Your task to perform on an android device: open chrome and create a bookmark for the current page Image 0: 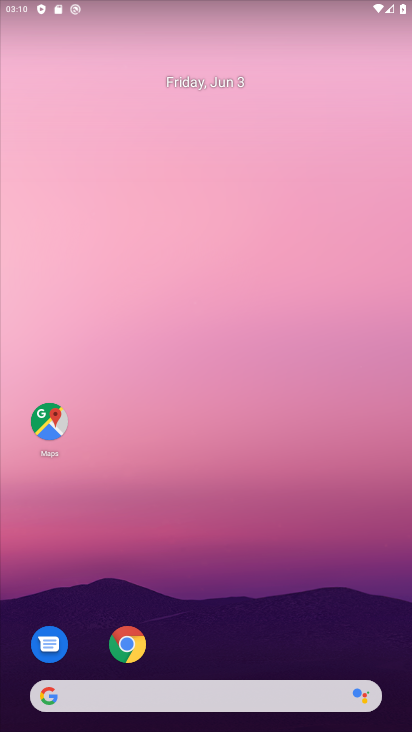
Step 0: press home button
Your task to perform on an android device: open chrome and create a bookmark for the current page Image 1: 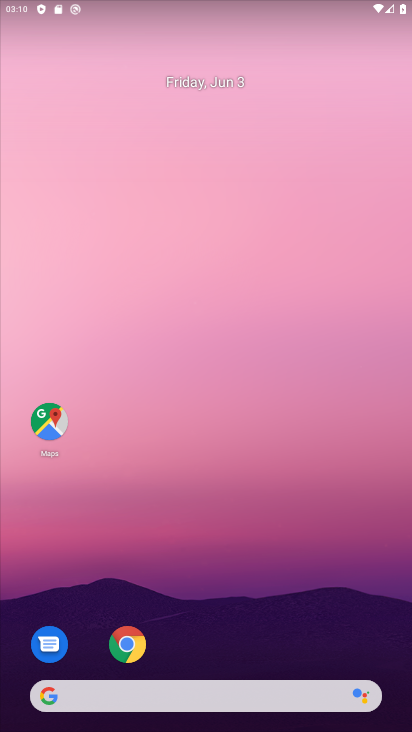
Step 1: drag from (400, 684) to (368, 118)
Your task to perform on an android device: open chrome and create a bookmark for the current page Image 2: 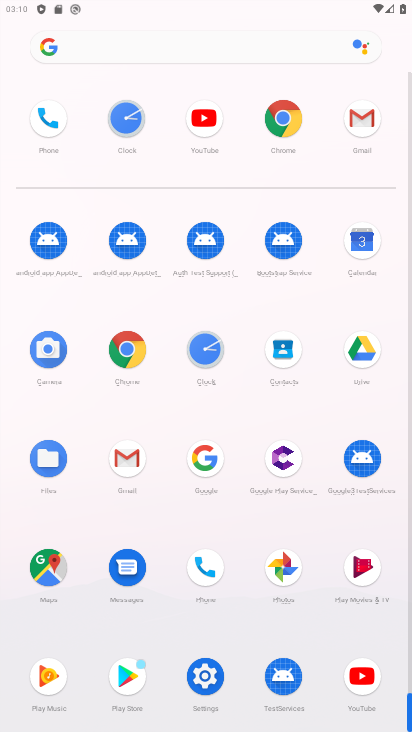
Step 2: click (136, 390)
Your task to perform on an android device: open chrome and create a bookmark for the current page Image 3: 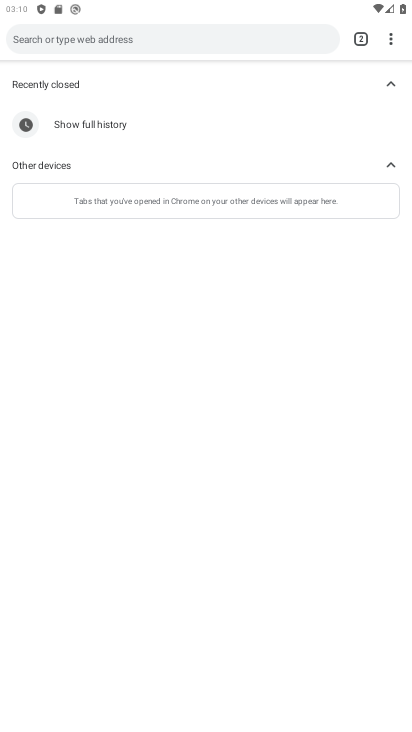
Step 3: task complete